Your task to perform on an android device: Open Google Chrome and open the bookmarks view Image 0: 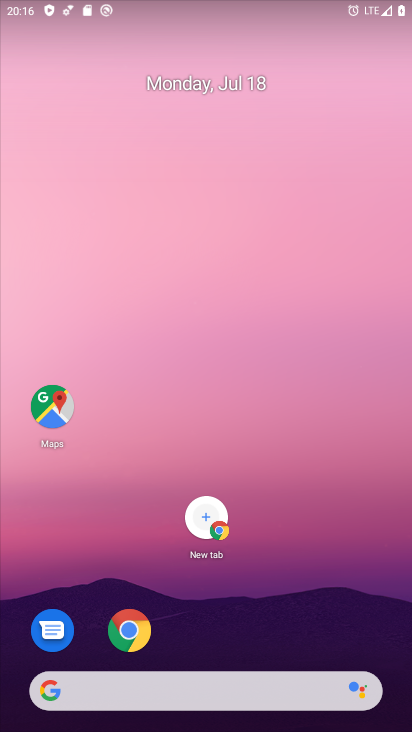
Step 0: click (130, 631)
Your task to perform on an android device: Open Google Chrome and open the bookmarks view Image 1: 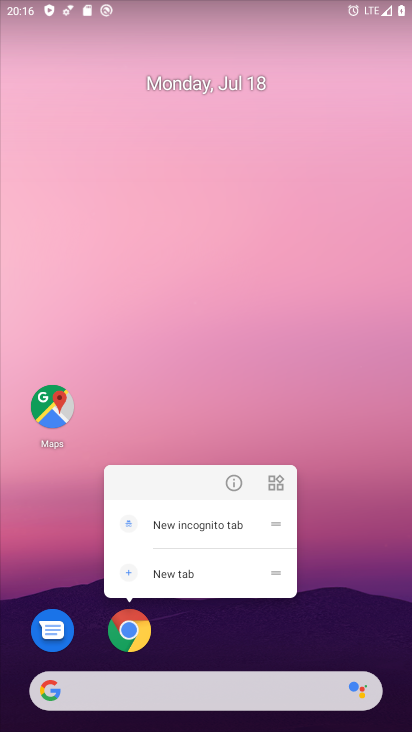
Step 1: drag from (257, 659) to (251, 317)
Your task to perform on an android device: Open Google Chrome and open the bookmarks view Image 2: 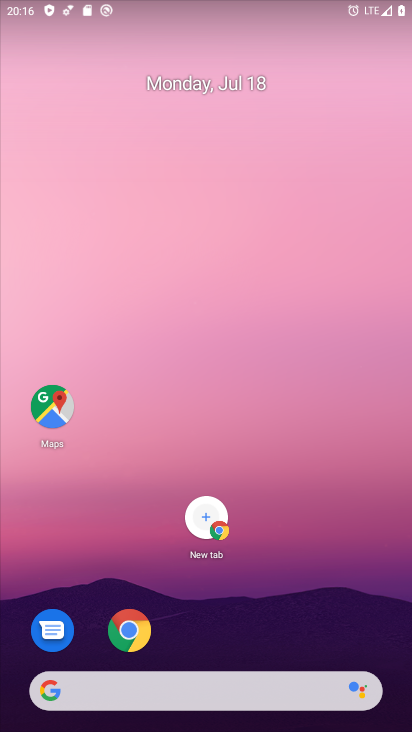
Step 2: drag from (212, 671) to (285, 44)
Your task to perform on an android device: Open Google Chrome and open the bookmarks view Image 3: 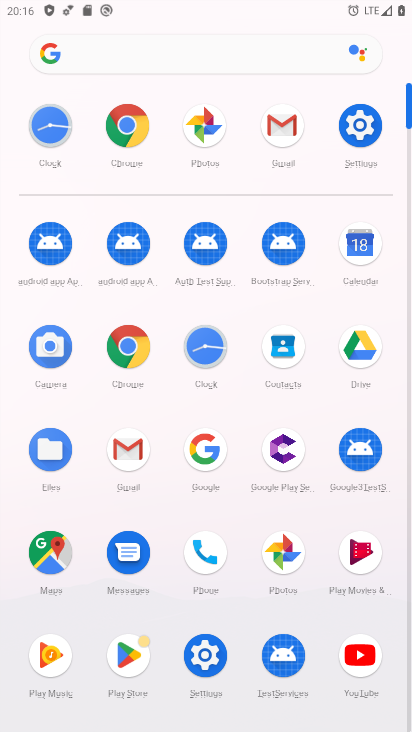
Step 3: click (107, 350)
Your task to perform on an android device: Open Google Chrome and open the bookmarks view Image 4: 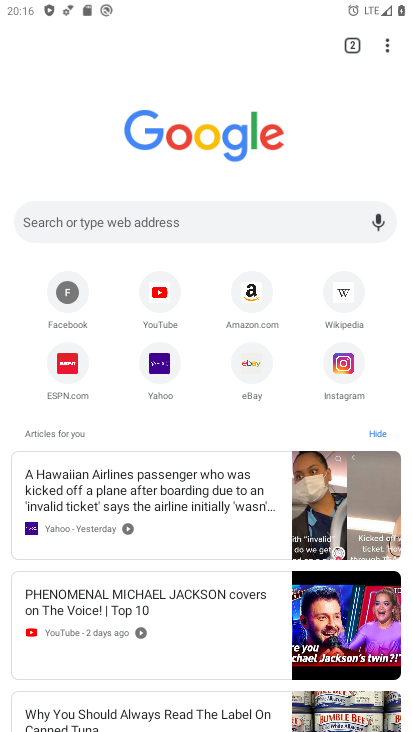
Step 4: click (390, 45)
Your task to perform on an android device: Open Google Chrome and open the bookmarks view Image 5: 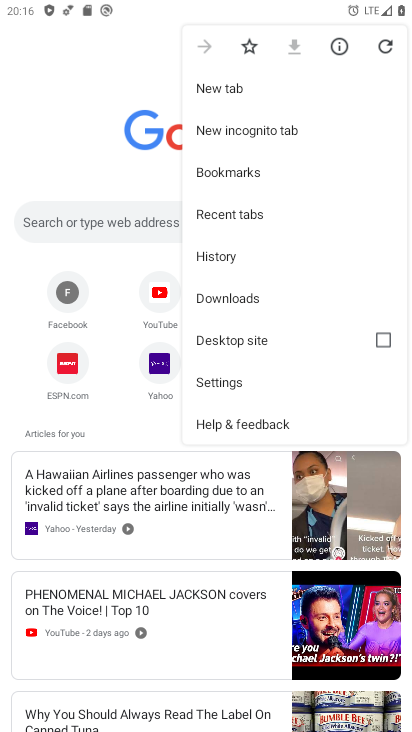
Step 5: click (228, 171)
Your task to perform on an android device: Open Google Chrome and open the bookmarks view Image 6: 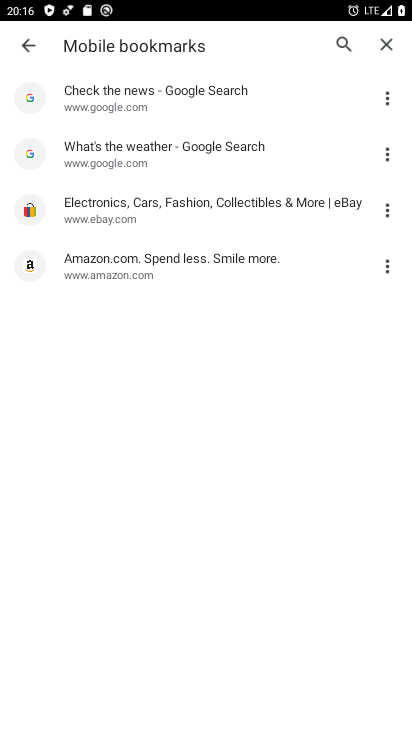
Step 6: task complete